Your task to perform on an android device: Is it going to rain today? Image 0: 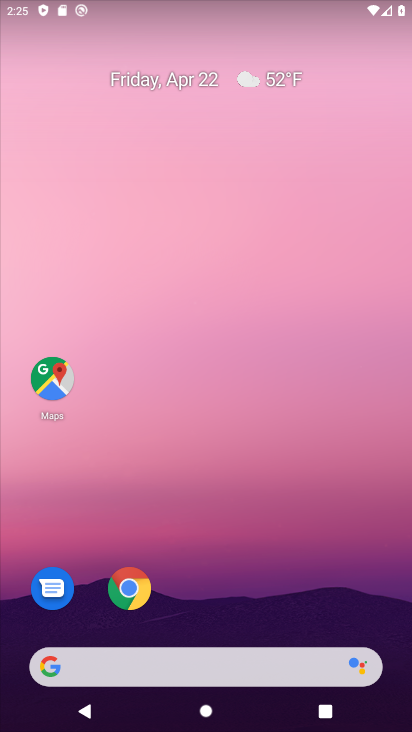
Step 0: click (393, 626)
Your task to perform on an android device: Is it going to rain today? Image 1: 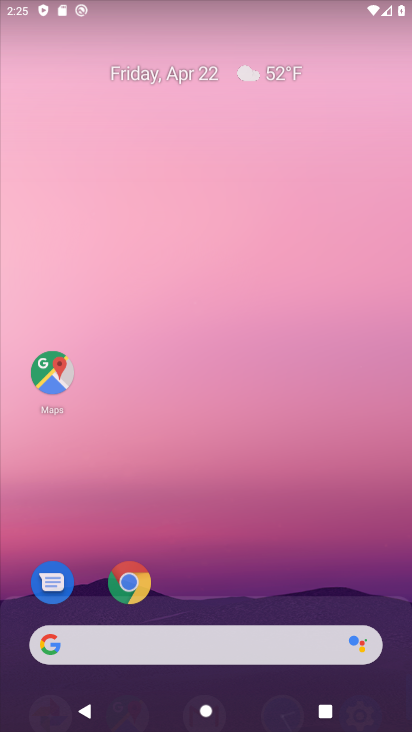
Step 1: click (280, 79)
Your task to perform on an android device: Is it going to rain today? Image 2: 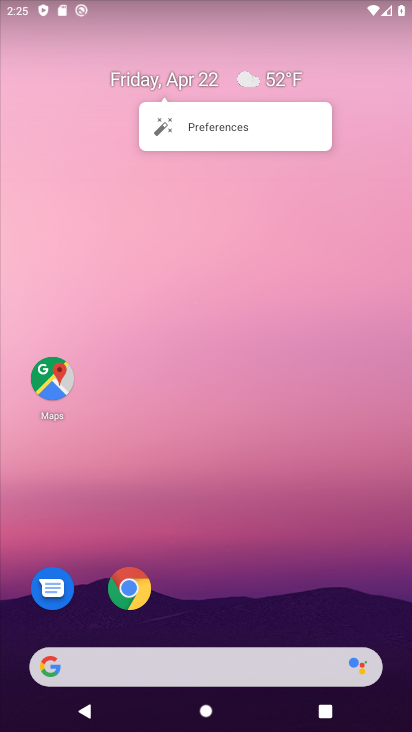
Step 2: click (279, 79)
Your task to perform on an android device: Is it going to rain today? Image 3: 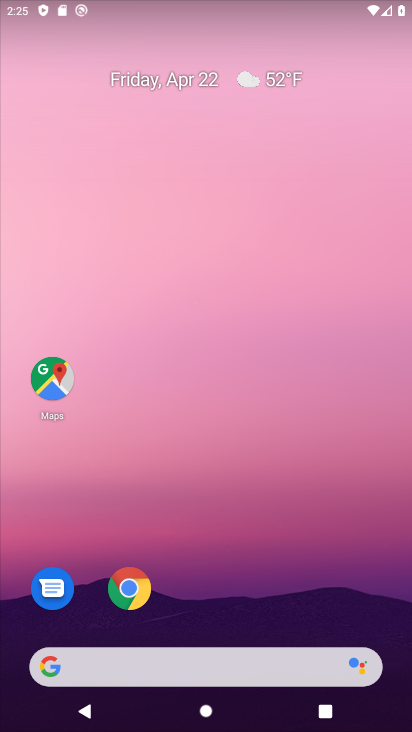
Step 3: click (260, 81)
Your task to perform on an android device: Is it going to rain today? Image 4: 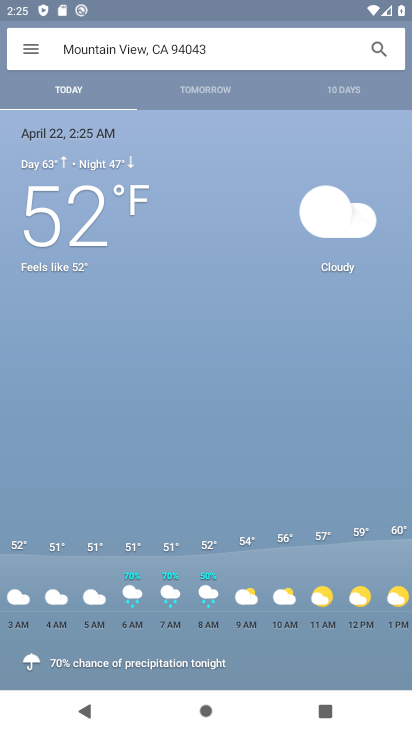
Step 4: task complete